Your task to perform on an android device: Go to calendar. Show me events next week Image 0: 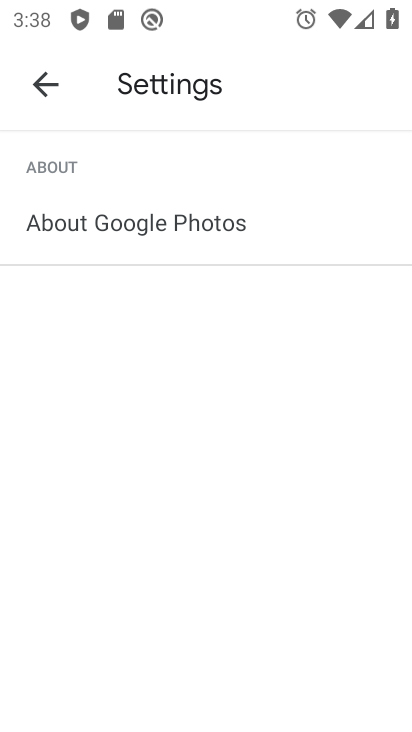
Step 0: press home button
Your task to perform on an android device: Go to calendar. Show me events next week Image 1: 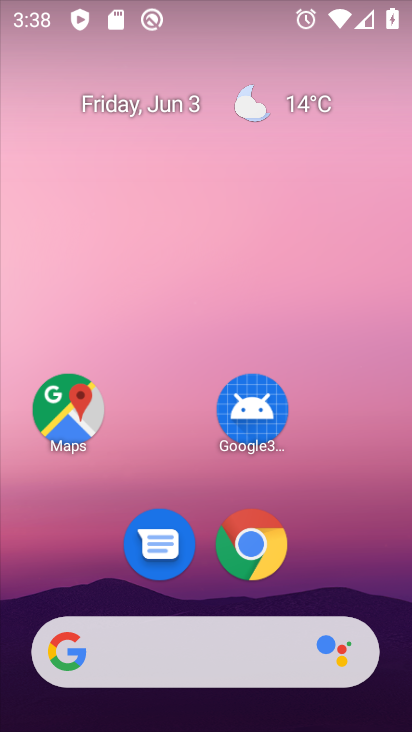
Step 1: drag from (84, 598) to (180, 183)
Your task to perform on an android device: Go to calendar. Show me events next week Image 2: 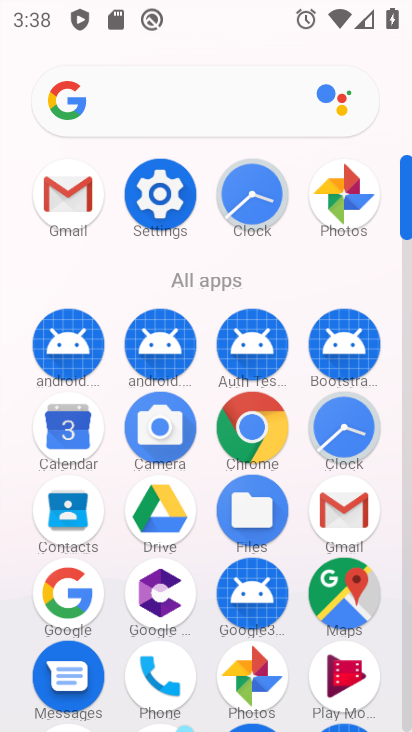
Step 2: click (80, 432)
Your task to perform on an android device: Go to calendar. Show me events next week Image 3: 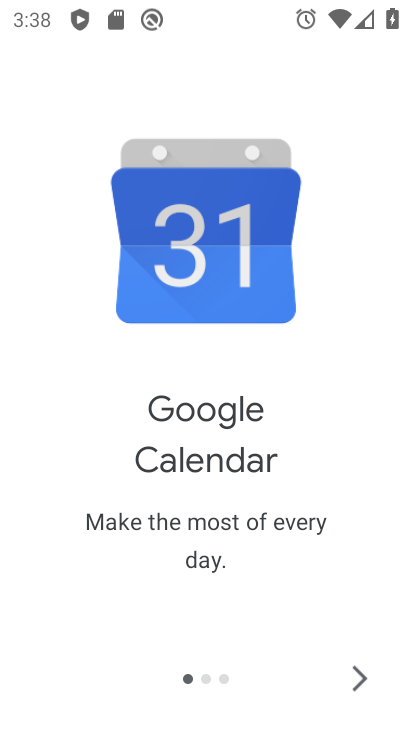
Step 3: click (208, 424)
Your task to perform on an android device: Go to calendar. Show me events next week Image 4: 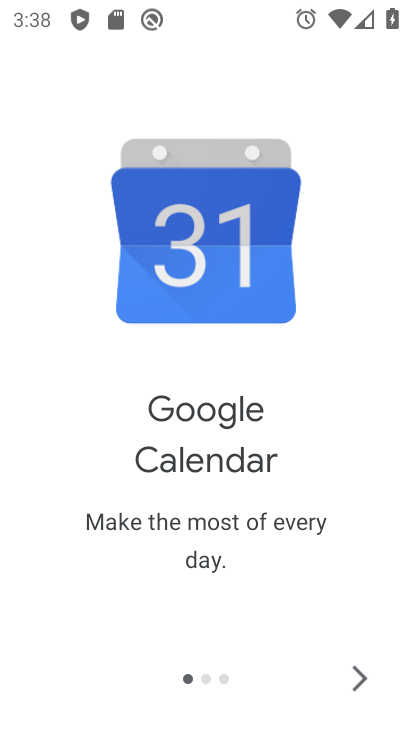
Step 4: click (351, 667)
Your task to perform on an android device: Go to calendar. Show me events next week Image 5: 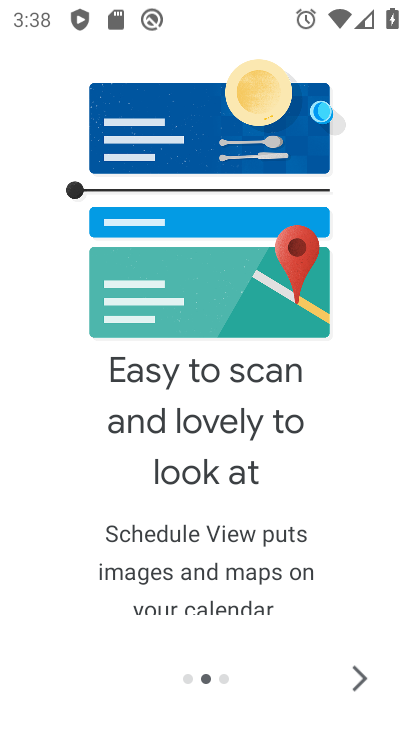
Step 5: click (342, 682)
Your task to perform on an android device: Go to calendar. Show me events next week Image 6: 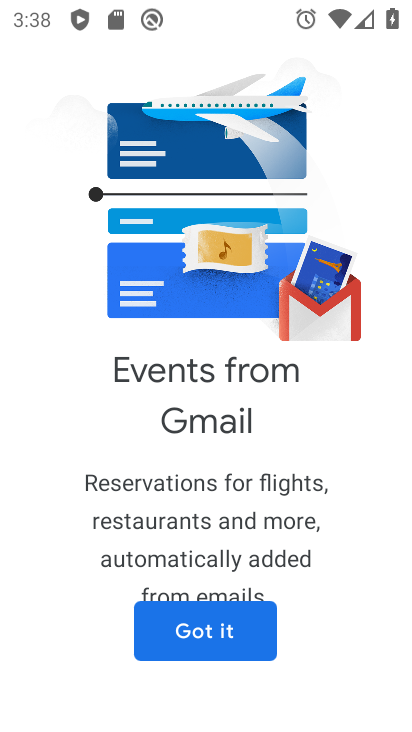
Step 6: click (231, 640)
Your task to perform on an android device: Go to calendar. Show me events next week Image 7: 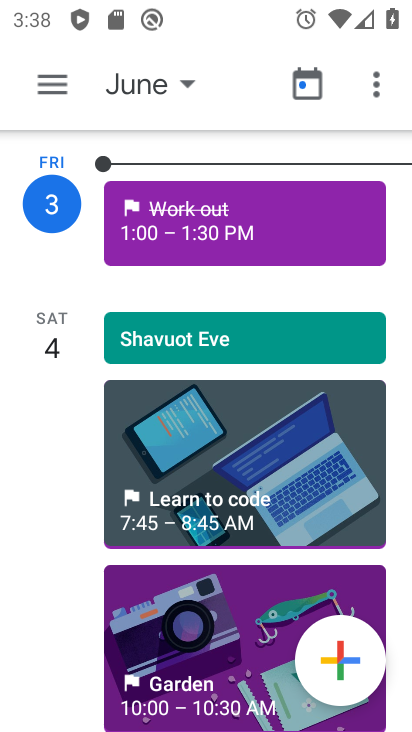
Step 7: click (59, 89)
Your task to perform on an android device: Go to calendar. Show me events next week Image 8: 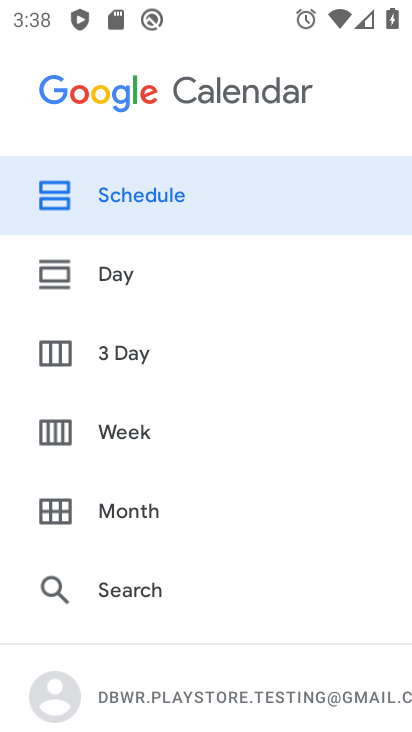
Step 8: click (135, 434)
Your task to perform on an android device: Go to calendar. Show me events next week Image 9: 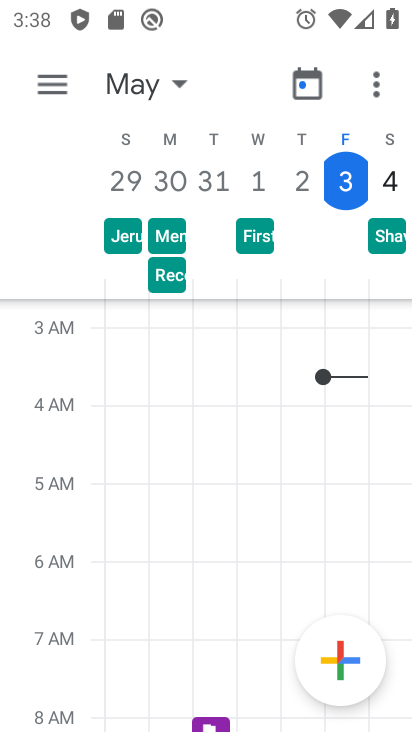
Step 9: click (142, 93)
Your task to perform on an android device: Go to calendar. Show me events next week Image 10: 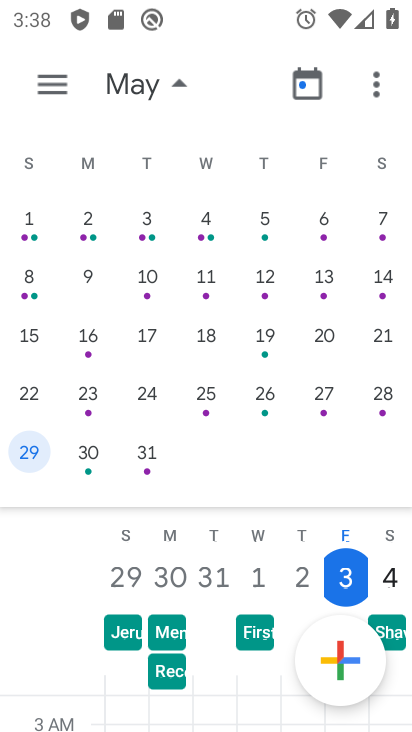
Step 10: drag from (366, 396) to (4, 335)
Your task to perform on an android device: Go to calendar. Show me events next week Image 11: 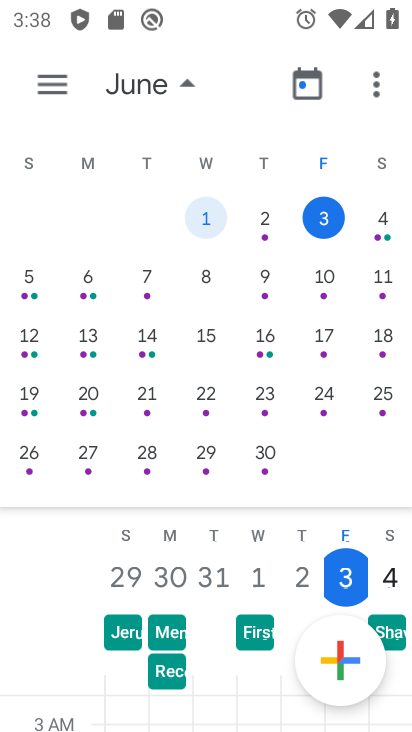
Step 11: click (35, 280)
Your task to perform on an android device: Go to calendar. Show me events next week Image 12: 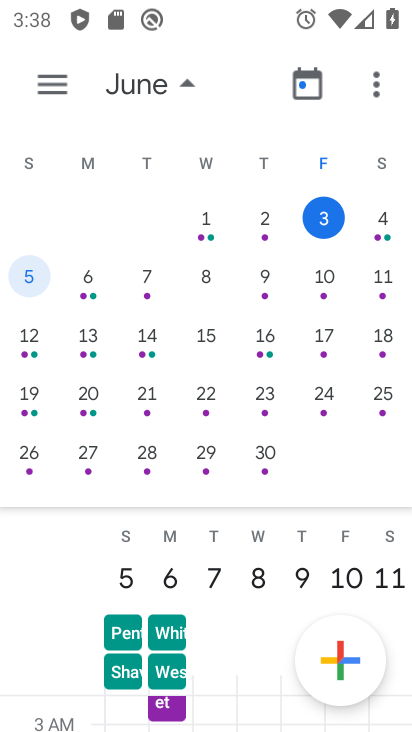
Step 12: click (183, 85)
Your task to perform on an android device: Go to calendar. Show me events next week Image 13: 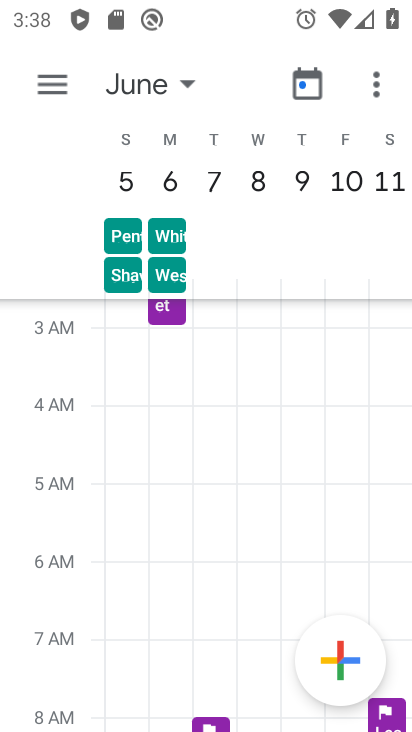
Step 13: task complete